Your task to perform on an android device: manage bookmarks in the chrome app Image 0: 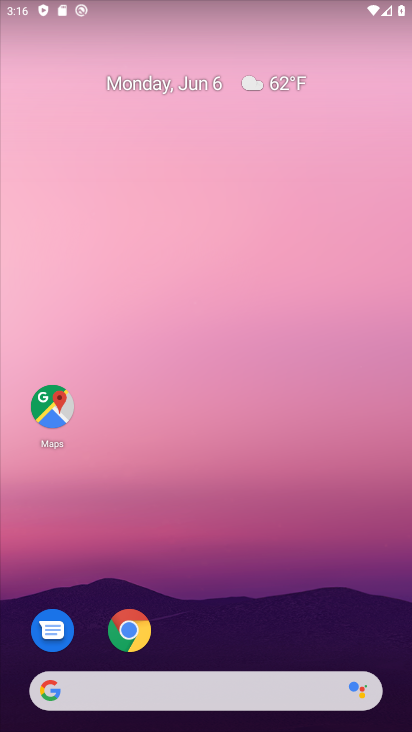
Step 0: click (117, 633)
Your task to perform on an android device: manage bookmarks in the chrome app Image 1: 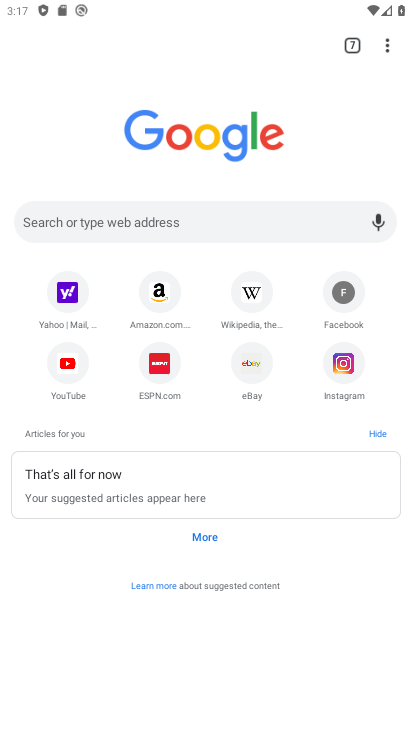
Step 1: click (387, 51)
Your task to perform on an android device: manage bookmarks in the chrome app Image 2: 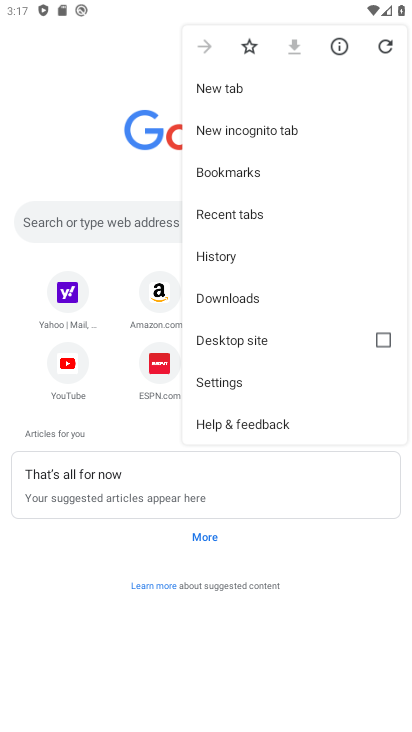
Step 2: click (221, 166)
Your task to perform on an android device: manage bookmarks in the chrome app Image 3: 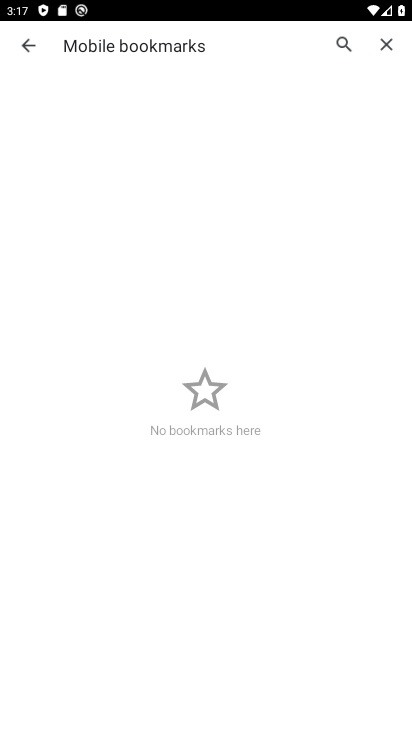
Step 3: task complete